Your task to perform on an android device: Open calendar and show me the second week of next month Image 0: 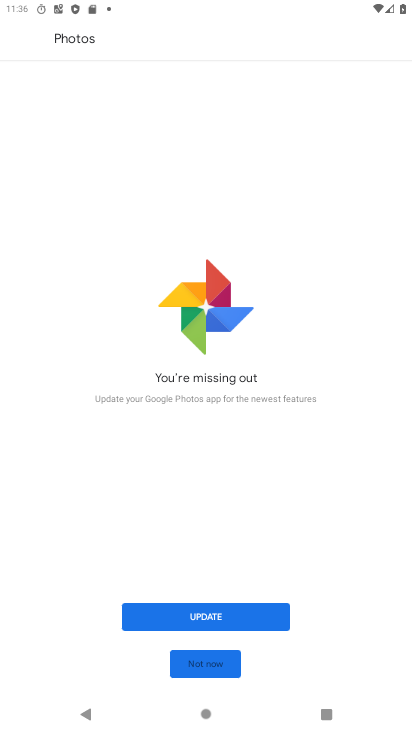
Step 0: press home button
Your task to perform on an android device: Open calendar and show me the second week of next month Image 1: 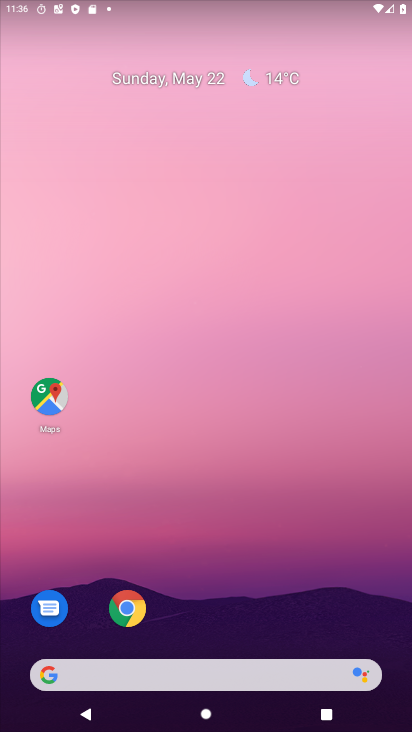
Step 1: drag from (232, 723) to (209, 151)
Your task to perform on an android device: Open calendar and show me the second week of next month Image 2: 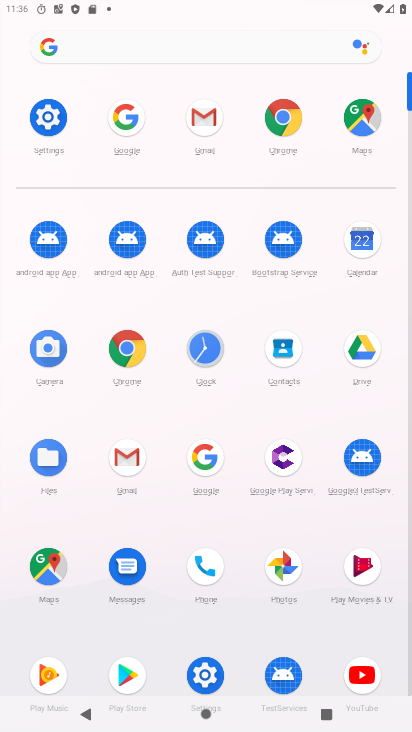
Step 2: click (357, 252)
Your task to perform on an android device: Open calendar and show me the second week of next month Image 3: 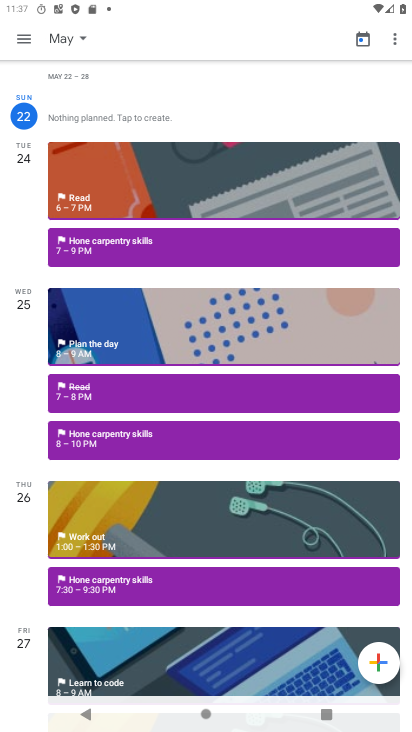
Step 3: click (60, 37)
Your task to perform on an android device: Open calendar and show me the second week of next month Image 4: 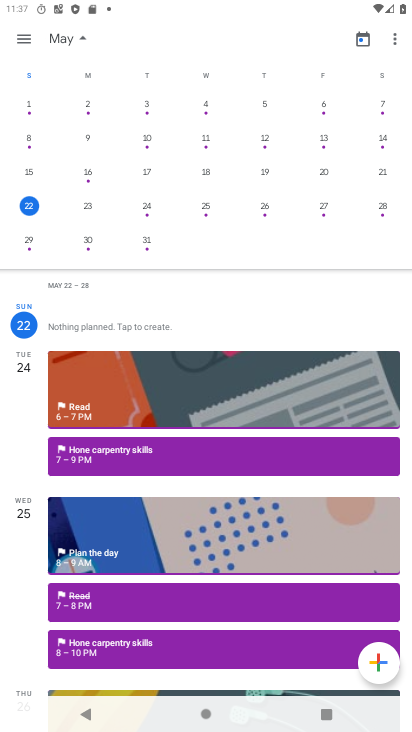
Step 4: drag from (363, 162) to (23, 191)
Your task to perform on an android device: Open calendar and show me the second week of next month Image 5: 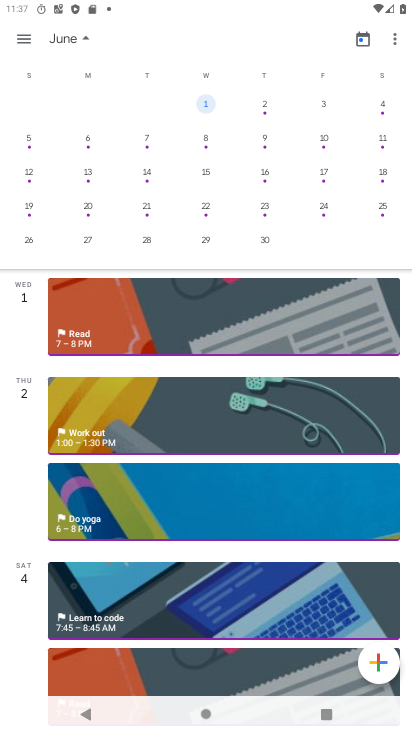
Step 5: click (87, 169)
Your task to perform on an android device: Open calendar and show me the second week of next month Image 6: 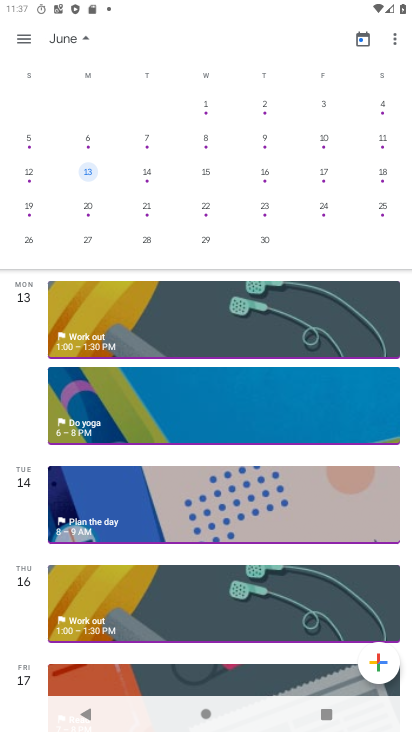
Step 6: task complete